Your task to perform on an android device: Go to internet settings Image 0: 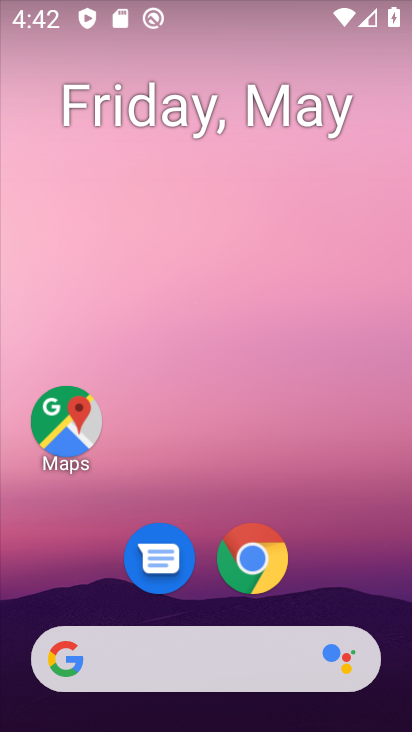
Step 0: drag from (361, 594) to (279, 226)
Your task to perform on an android device: Go to internet settings Image 1: 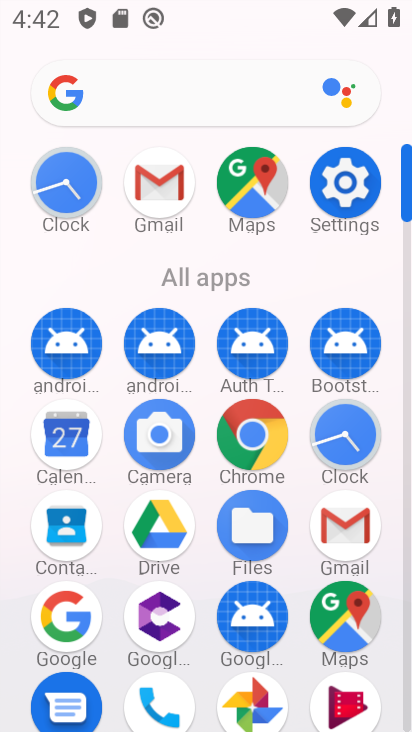
Step 1: click (343, 189)
Your task to perform on an android device: Go to internet settings Image 2: 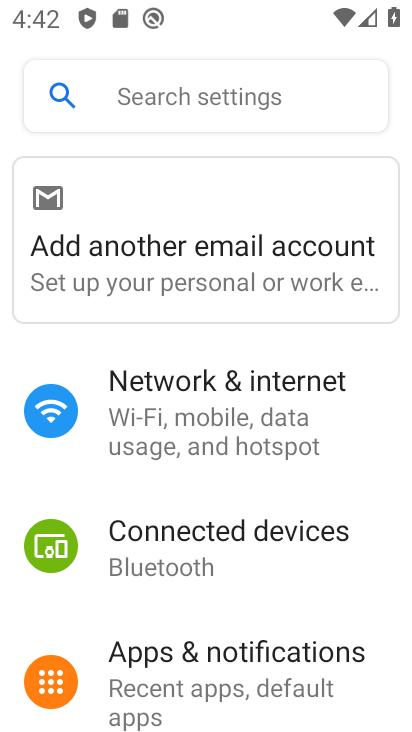
Step 2: click (201, 366)
Your task to perform on an android device: Go to internet settings Image 3: 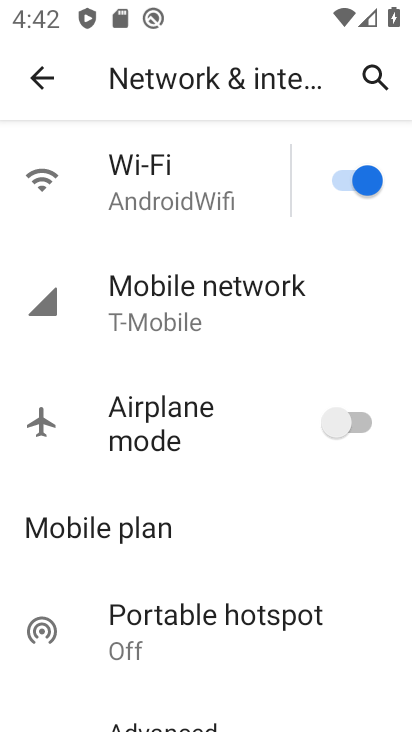
Step 3: task complete